Your task to perform on an android device: open sync settings in chrome Image 0: 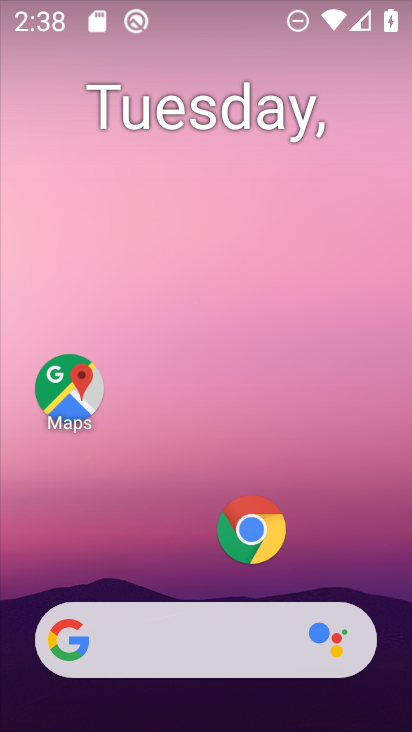
Step 0: drag from (285, 657) to (327, 1)
Your task to perform on an android device: open sync settings in chrome Image 1: 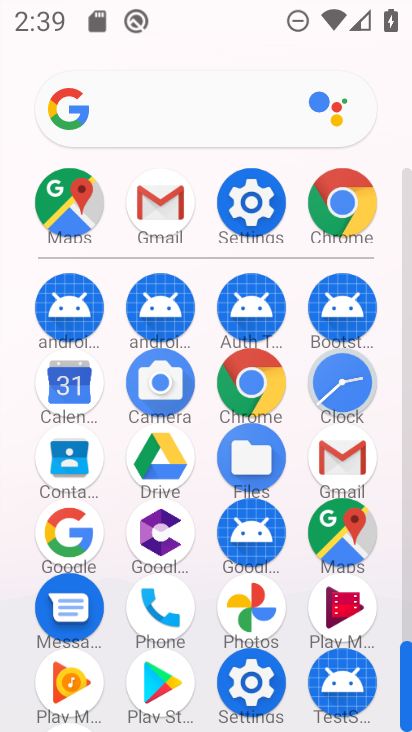
Step 1: click (355, 179)
Your task to perform on an android device: open sync settings in chrome Image 2: 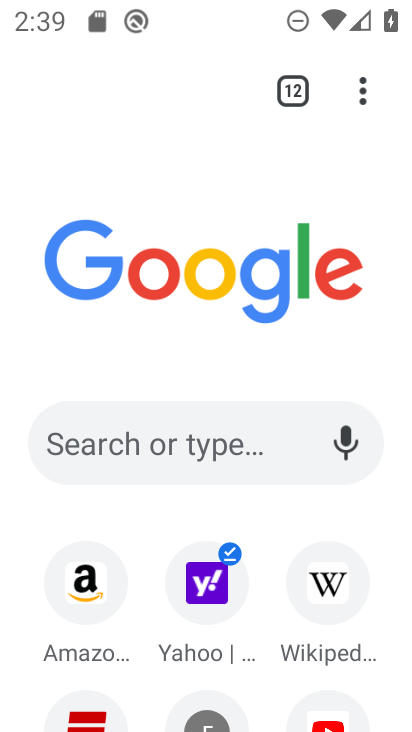
Step 2: click (361, 96)
Your task to perform on an android device: open sync settings in chrome Image 3: 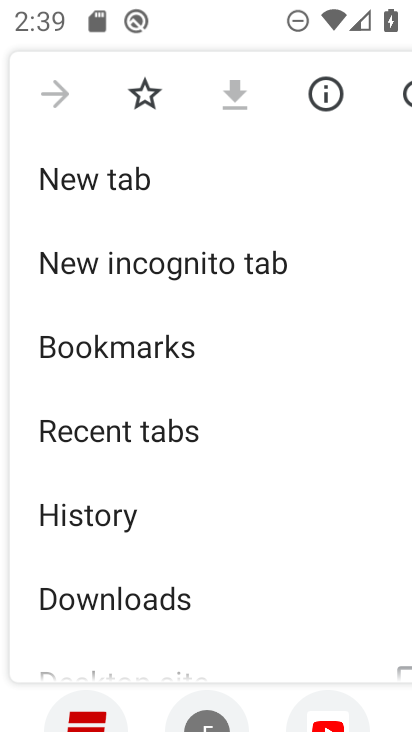
Step 3: drag from (166, 513) to (181, 95)
Your task to perform on an android device: open sync settings in chrome Image 4: 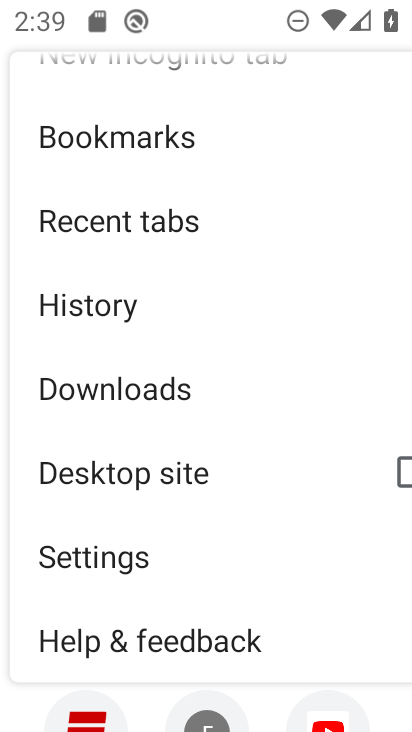
Step 4: click (96, 555)
Your task to perform on an android device: open sync settings in chrome Image 5: 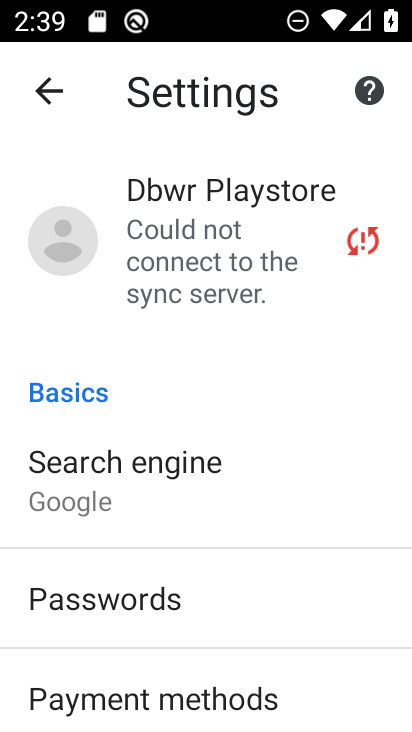
Step 5: drag from (127, 665) to (173, 286)
Your task to perform on an android device: open sync settings in chrome Image 6: 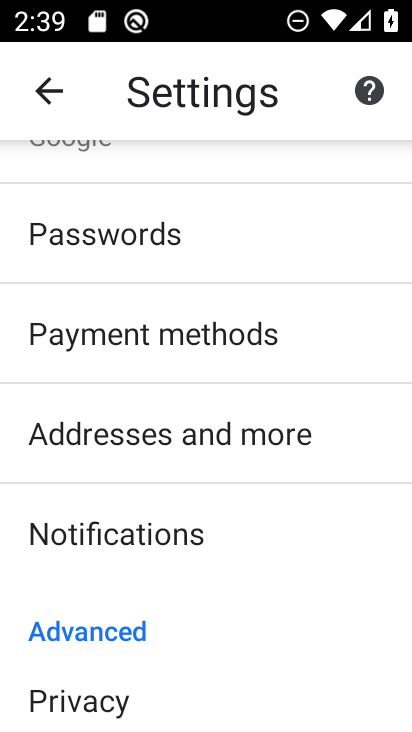
Step 6: drag from (184, 572) to (226, 295)
Your task to perform on an android device: open sync settings in chrome Image 7: 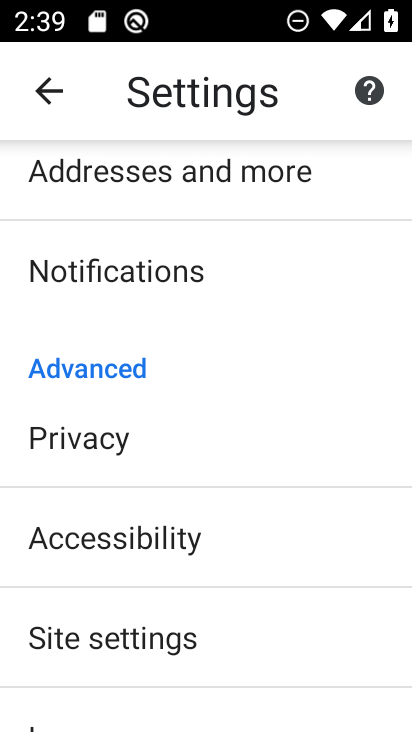
Step 7: click (119, 627)
Your task to perform on an android device: open sync settings in chrome Image 8: 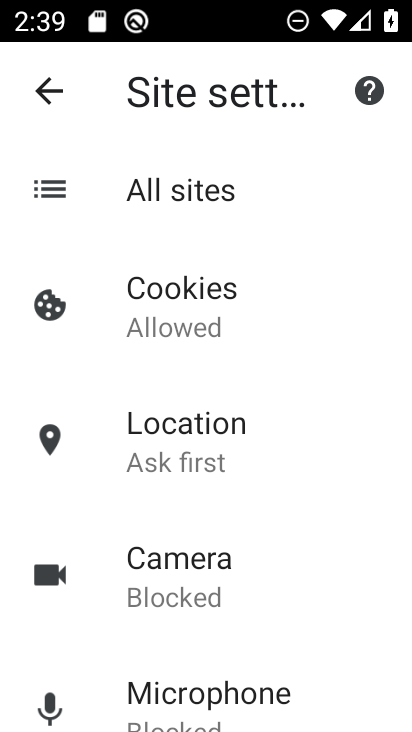
Step 8: drag from (181, 648) to (202, 20)
Your task to perform on an android device: open sync settings in chrome Image 9: 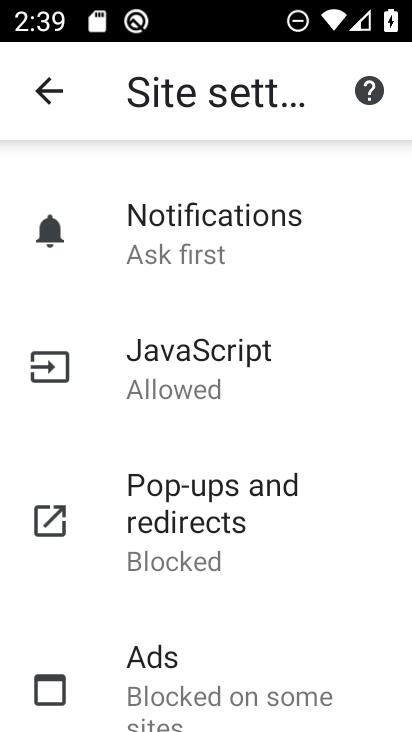
Step 9: click (186, 508)
Your task to perform on an android device: open sync settings in chrome Image 10: 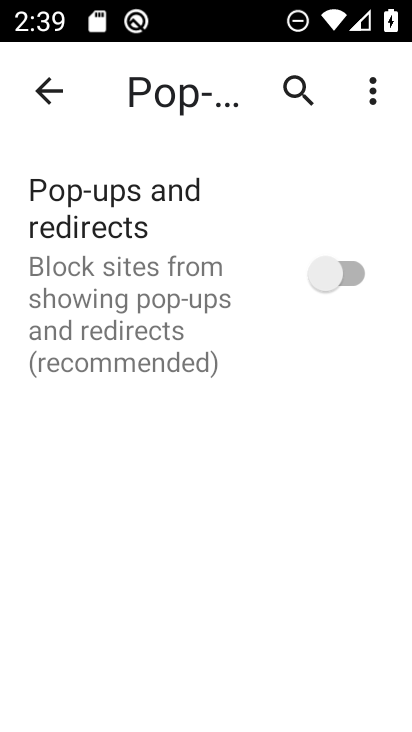
Step 10: task complete